Your task to perform on an android device: toggle pop-ups in chrome Image 0: 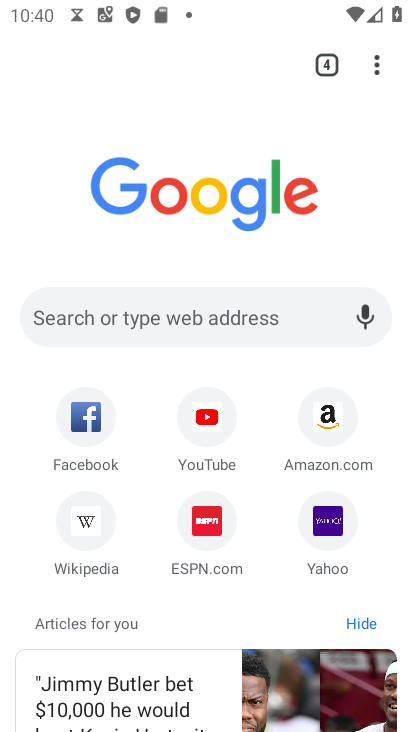
Step 0: drag from (372, 71) to (182, 555)
Your task to perform on an android device: toggle pop-ups in chrome Image 1: 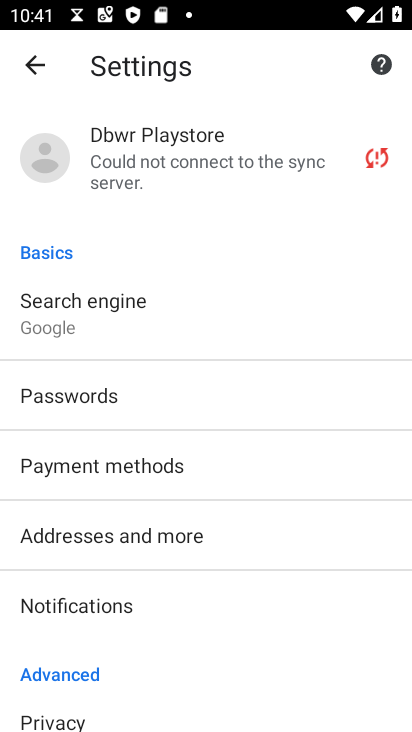
Step 1: drag from (126, 579) to (94, 0)
Your task to perform on an android device: toggle pop-ups in chrome Image 2: 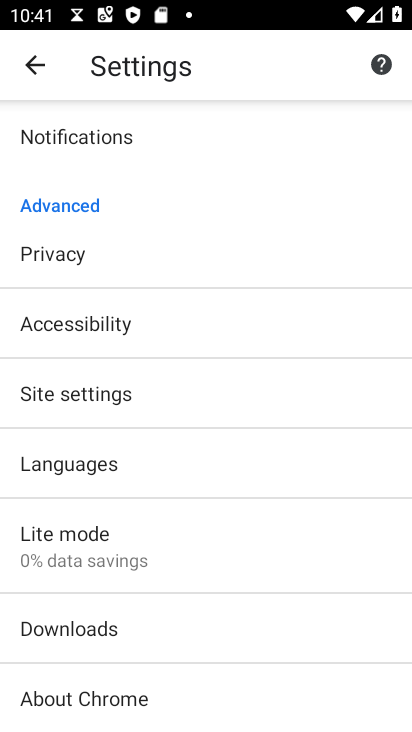
Step 2: click (119, 408)
Your task to perform on an android device: toggle pop-ups in chrome Image 3: 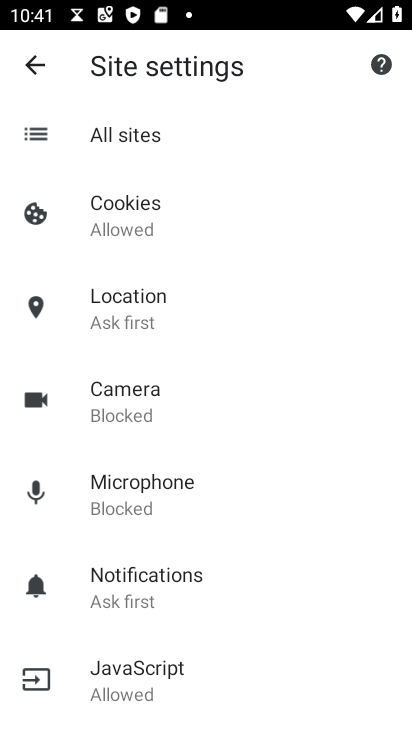
Step 3: drag from (151, 581) to (177, 7)
Your task to perform on an android device: toggle pop-ups in chrome Image 4: 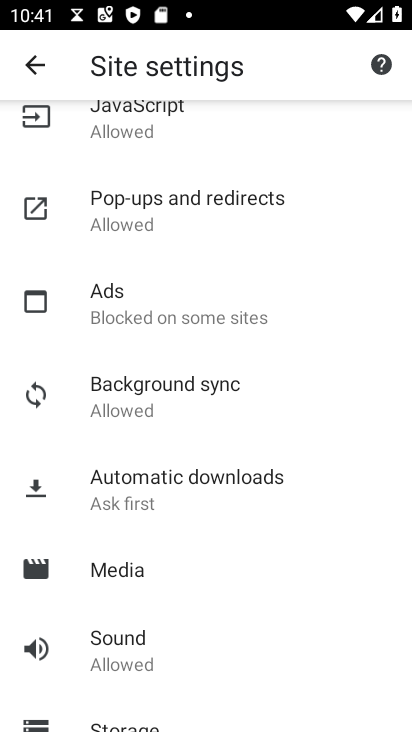
Step 4: click (109, 203)
Your task to perform on an android device: toggle pop-ups in chrome Image 5: 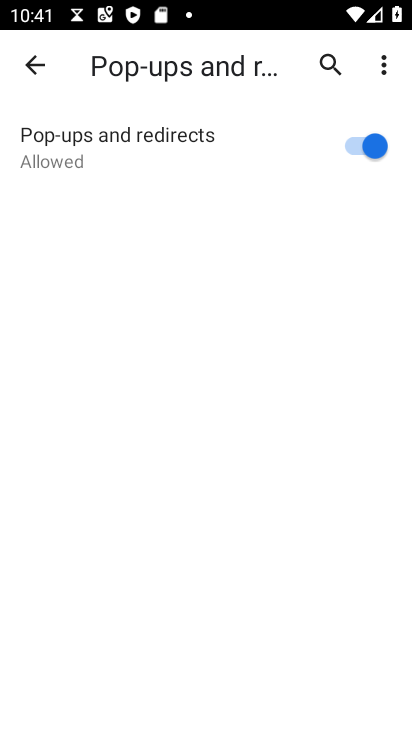
Step 5: click (357, 145)
Your task to perform on an android device: toggle pop-ups in chrome Image 6: 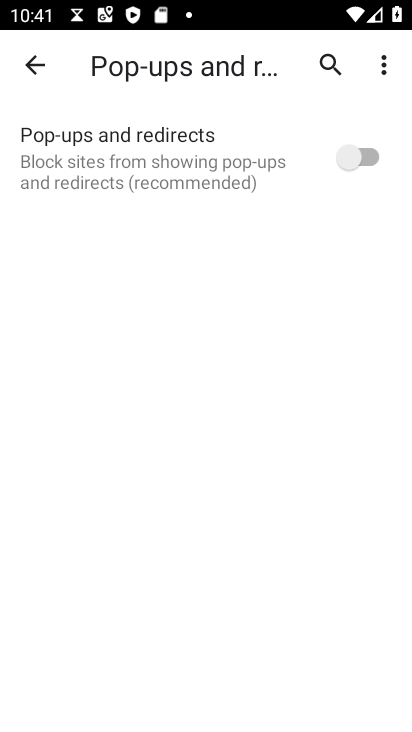
Step 6: task complete